Your task to perform on an android device: turn on improve location accuracy Image 0: 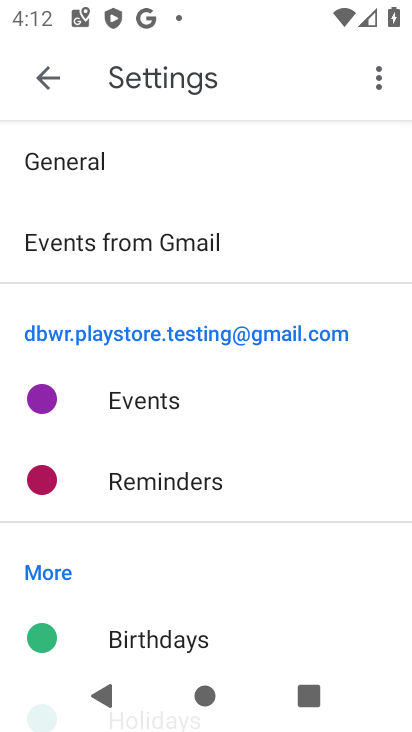
Step 0: press home button
Your task to perform on an android device: turn on improve location accuracy Image 1: 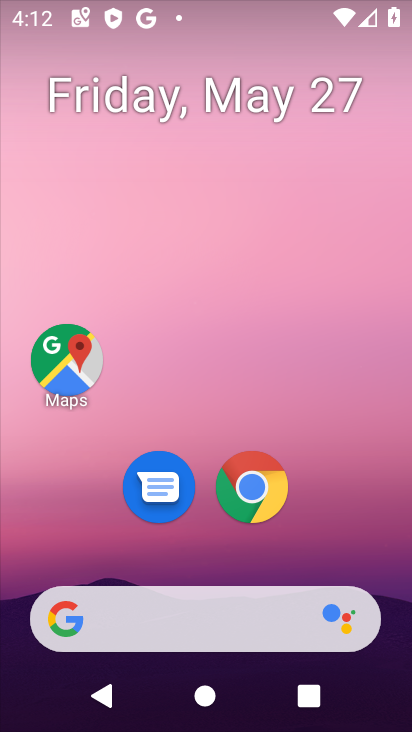
Step 1: drag from (341, 484) to (310, 164)
Your task to perform on an android device: turn on improve location accuracy Image 2: 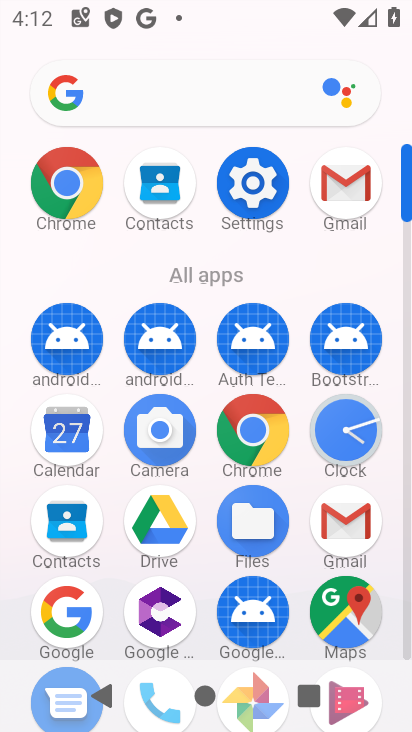
Step 2: click (254, 198)
Your task to perform on an android device: turn on improve location accuracy Image 3: 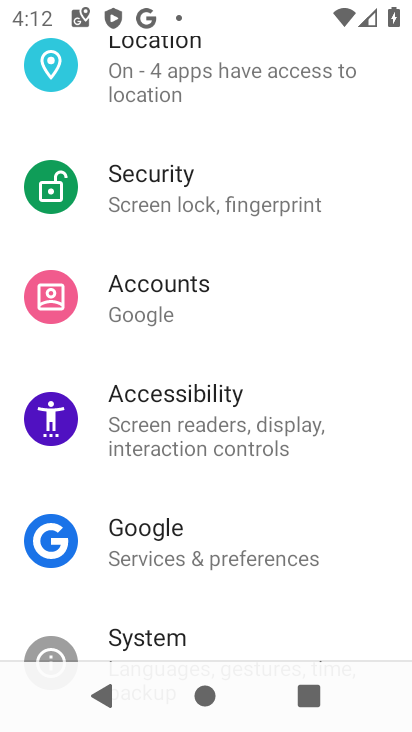
Step 3: click (229, 79)
Your task to perform on an android device: turn on improve location accuracy Image 4: 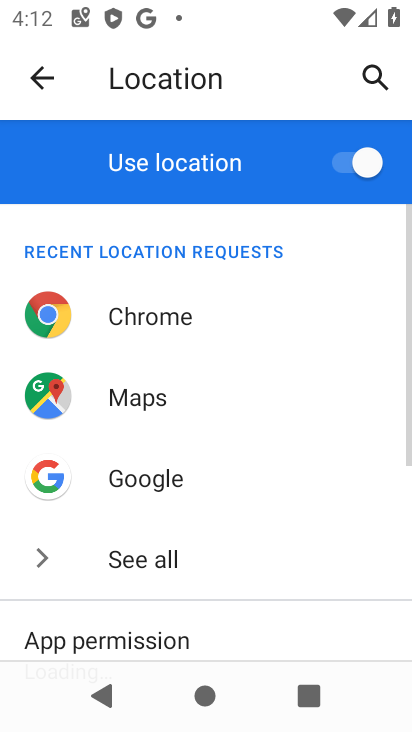
Step 4: drag from (294, 539) to (298, 149)
Your task to perform on an android device: turn on improve location accuracy Image 5: 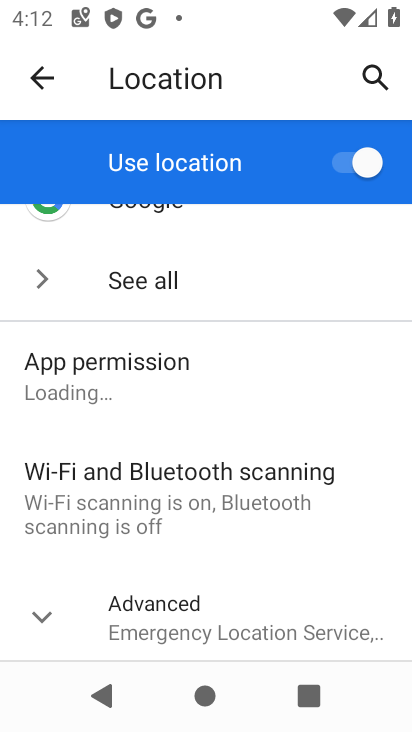
Step 5: click (228, 637)
Your task to perform on an android device: turn on improve location accuracy Image 6: 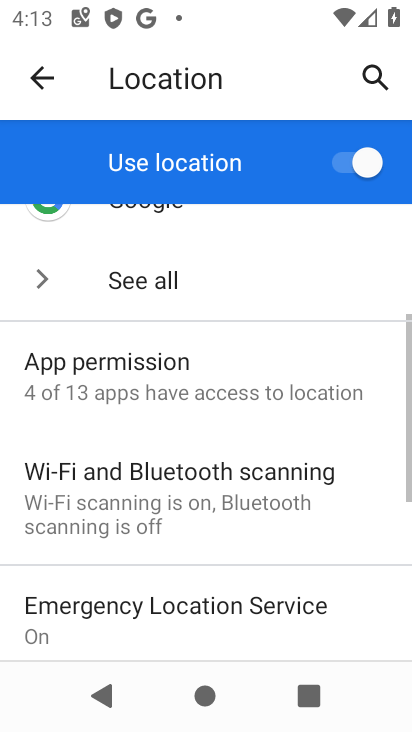
Step 6: drag from (238, 622) to (240, 266)
Your task to perform on an android device: turn on improve location accuracy Image 7: 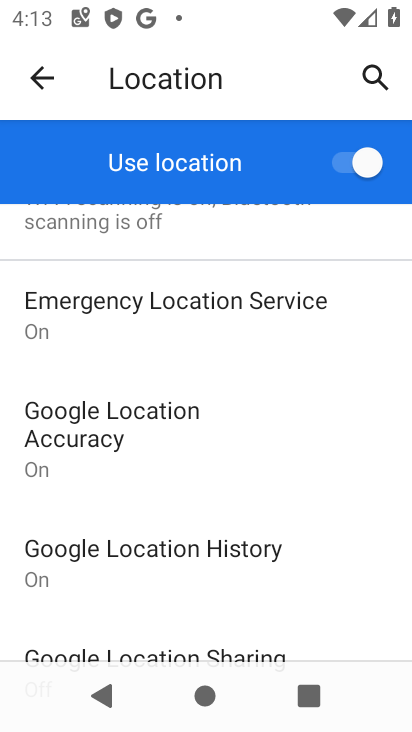
Step 7: drag from (229, 562) to (296, 160)
Your task to perform on an android device: turn on improve location accuracy Image 8: 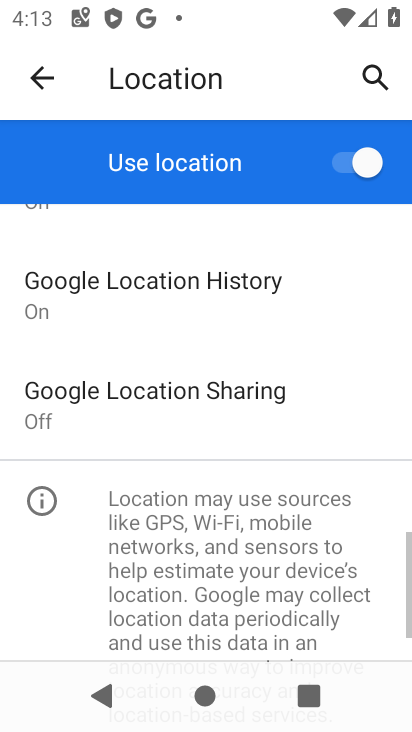
Step 8: drag from (230, 385) to (216, 632)
Your task to perform on an android device: turn on improve location accuracy Image 9: 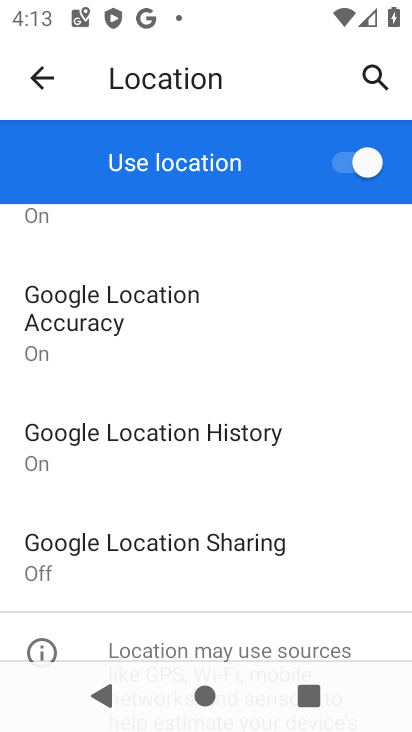
Step 9: click (124, 316)
Your task to perform on an android device: turn on improve location accuracy Image 10: 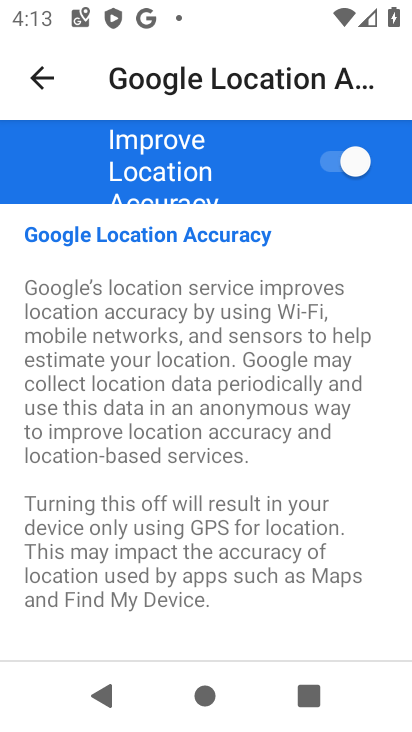
Step 10: task complete